Your task to perform on an android device: turn on bluetooth scan Image 0: 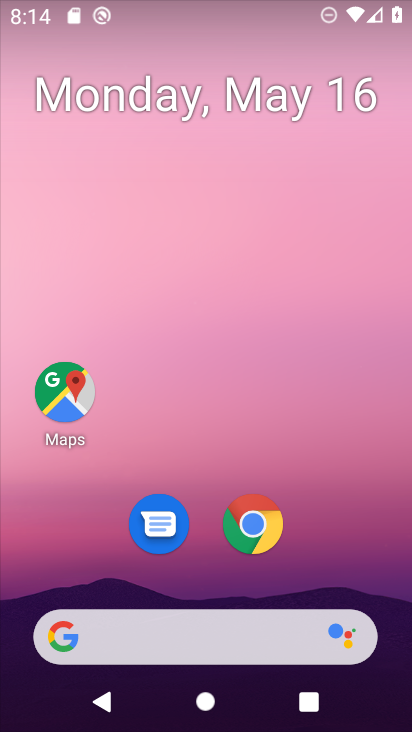
Step 0: drag from (350, 528) to (278, 113)
Your task to perform on an android device: turn on bluetooth scan Image 1: 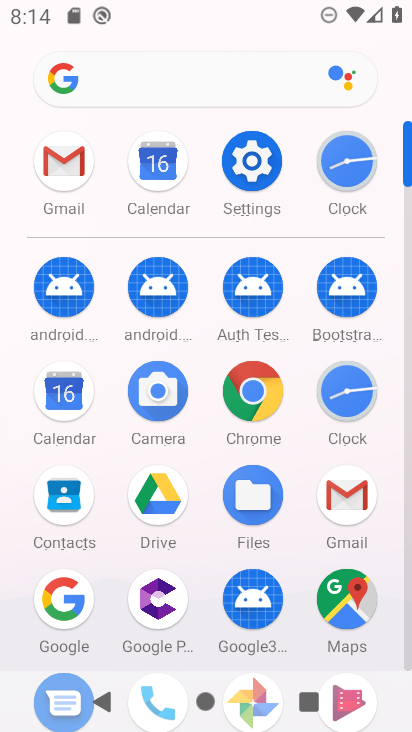
Step 1: click (257, 152)
Your task to perform on an android device: turn on bluetooth scan Image 2: 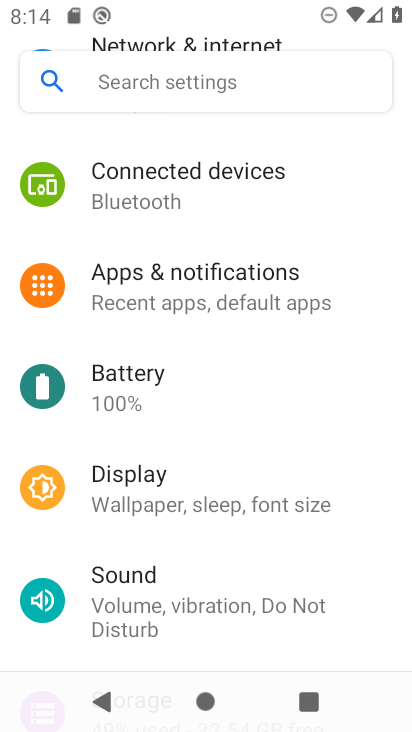
Step 2: drag from (214, 556) to (202, 24)
Your task to perform on an android device: turn on bluetooth scan Image 3: 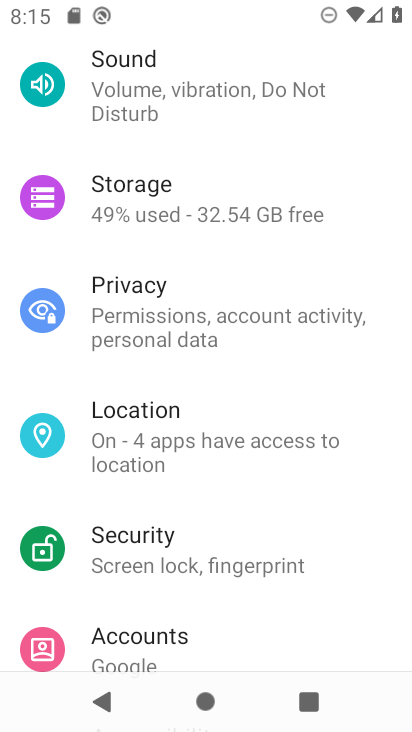
Step 3: click (201, 434)
Your task to perform on an android device: turn on bluetooth scan Image 4: 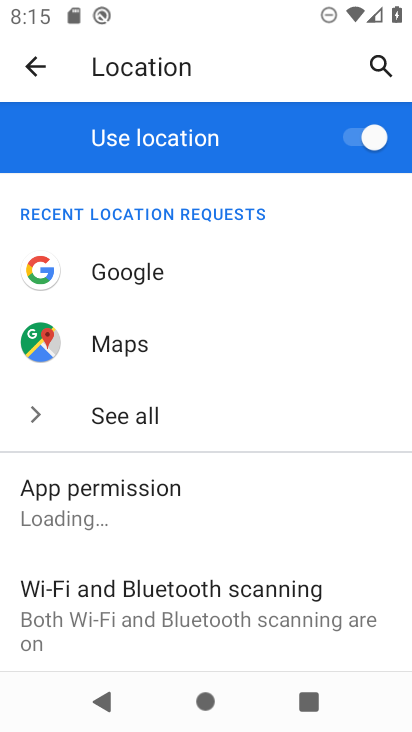
Step 4: click (238, 611)
Your task to perform on an android device: turn on bluetooth scan Image 5: 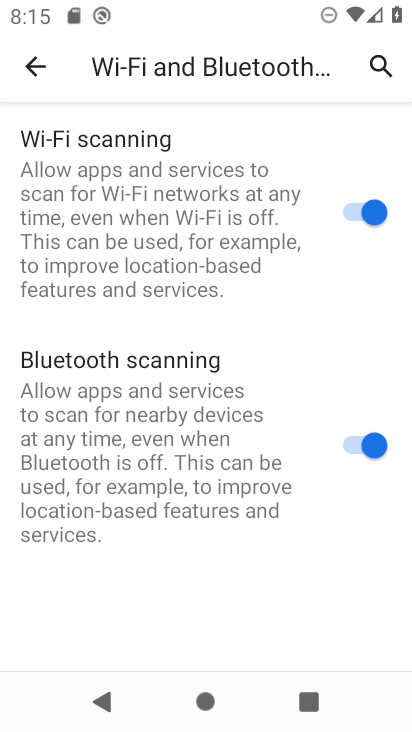
Step 5: task complete